Your task to perform on an android device: toggle priority inbox in the gmail app Image 0: 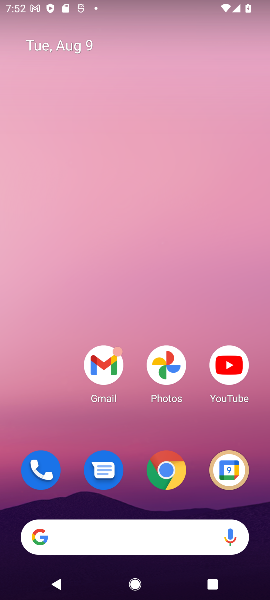
Step 0: click (179, 479)
Your task to perform on an android device: toggle priority inbox in the gmail app Image 1: 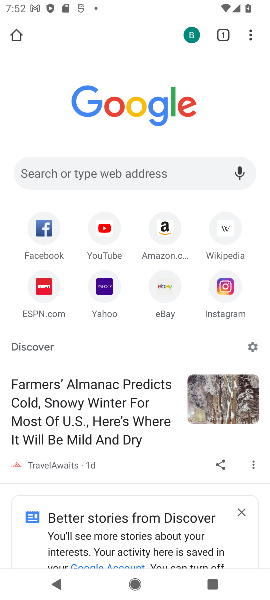
Step 1: click (252, 32)
Your task to perform on an android device: toggle priority inbox in the gmail app Image 2: 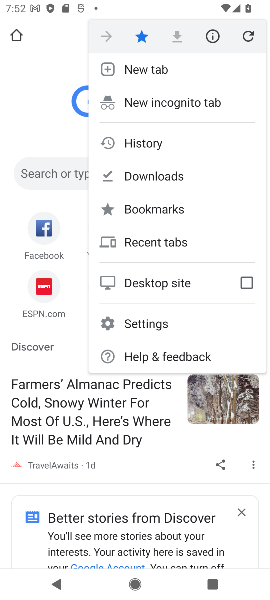
Step 2: click (251, 32)
Your task to perform on an android device: toggle priority inbox in the gmail app Image 3: 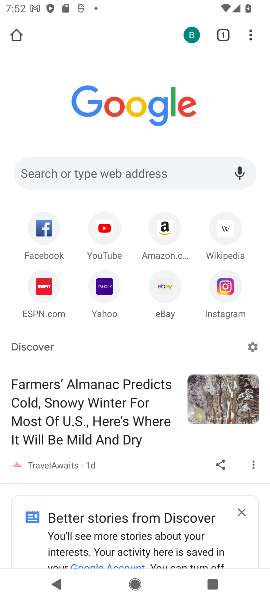
Step 3: click (244, 34)
Your task to perform on an android device: toggle priority inbox in the gmail app Image 4: 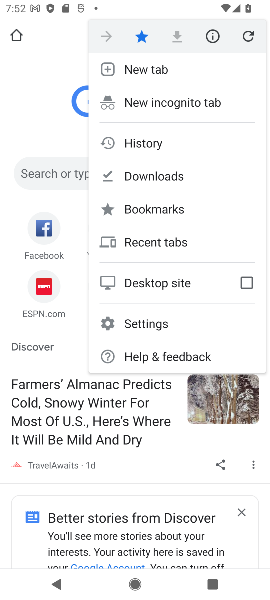
Step 4: click (142, 325)
Your task to perform on an android device: toggle priority inbox in the gmail app Image 5: 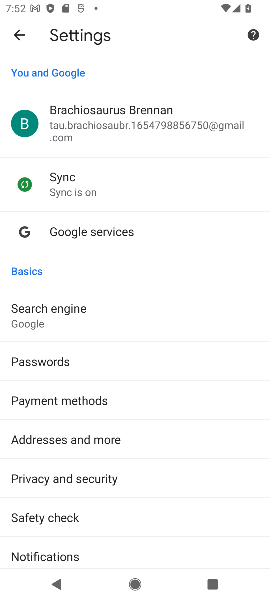
Step 5: drag from (111, 484) to (133, 224)
Your task to perform on an android device: toggle priority inbox in the gmail app Image 6: 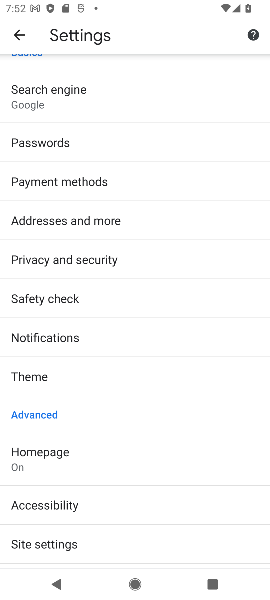
Step 6: drag from (75, 444) to (99, 284)
Your task to perform on an android device: toggle priority inbox in the gmail app Image 7: 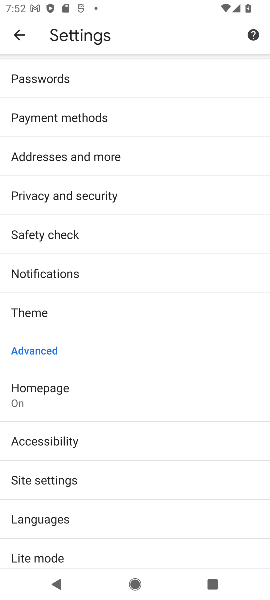
Step 7: click (44, 544)
Your task to perform on an android device: toggle priority inbox in the gmail app Image 8: 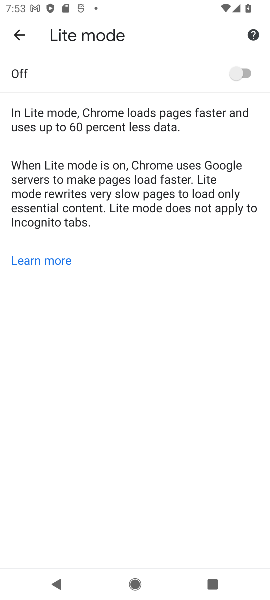
Step 8: press home button
Your task to perform on an android device: toggle priority inbox in the gmail app Image 9: 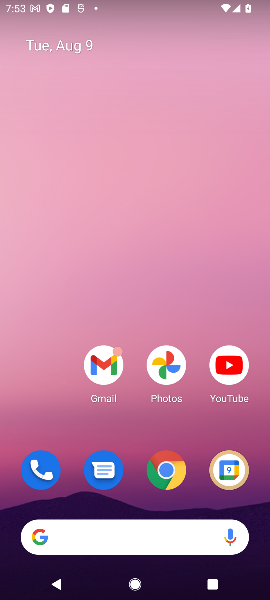
Step 9: drag from (140, 490) to (187, 7)
Your task to perform on an android device: toggle priority inbox in the gmail app Image 10: 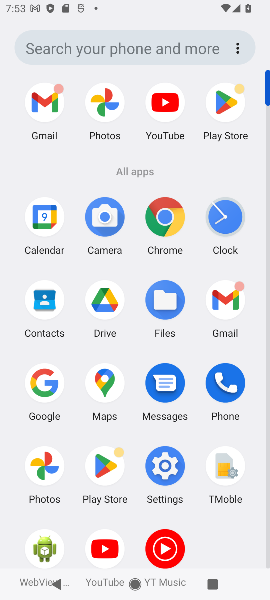
Step 10: click (229, 307)
Your task to perform on an android device: toggle priority inbox in the gmail app Image 11: 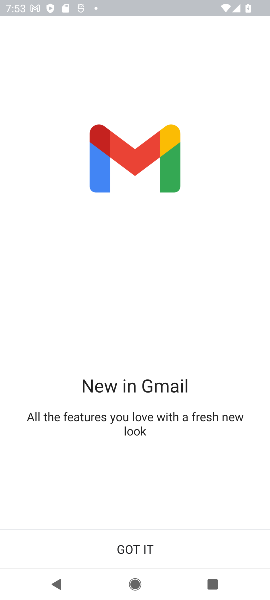
Step 11: click (152, 550)
Your task to perform on an android device: toggle priority inbox in the gmail app Image 12: 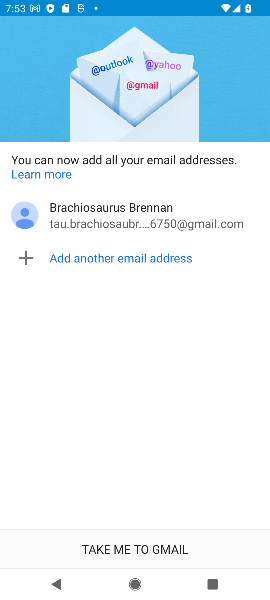
Step 12: click (157, 548)
Your task to perform on an android device: toggle priority inbox in the gmail app Image 13: 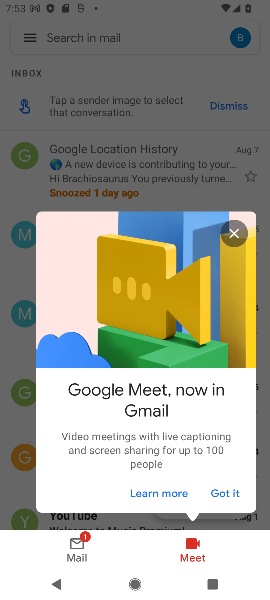
Step 13: click (234, 235)
Your task to perform on an android device: toggle priority inbox in the gmail app Image 14: 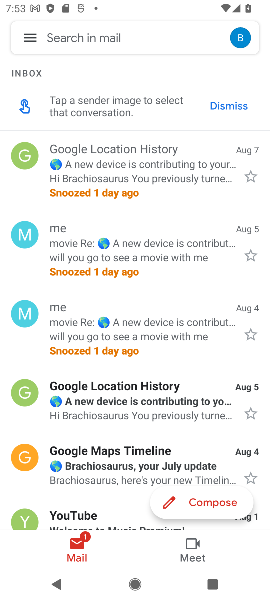
Step 14: click (30, 39)
Your task to perform on an android device: toggle priority inbox in the gmail app Image 15: 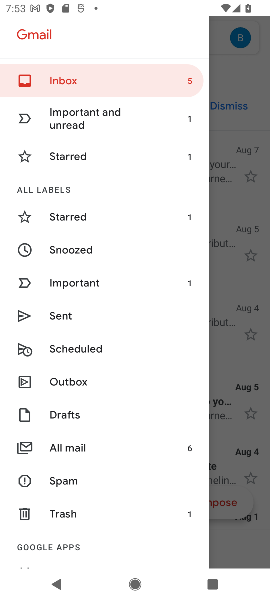
Step 15: drag from (88, 533) to (122, 240)
Your task to perform on an android device: toggle priority inbox in the gmail app Image 16: 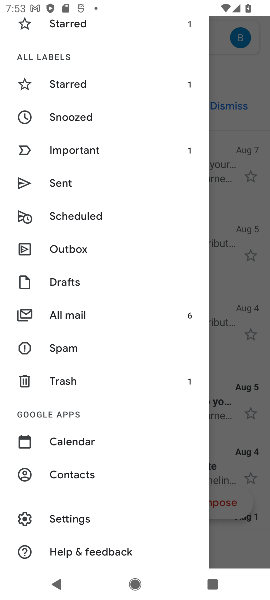
Step 16: click (81, 520)
Your task to perform on an android device: toggle priority inbox in the gmail app Image 17: 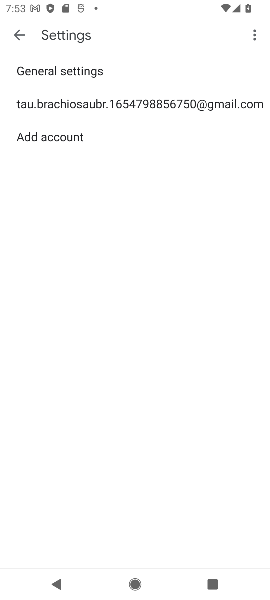
Step 17: click (141, 101)
Your task to perform on an android device: toggle priority inbox in the gmail app Image 18: 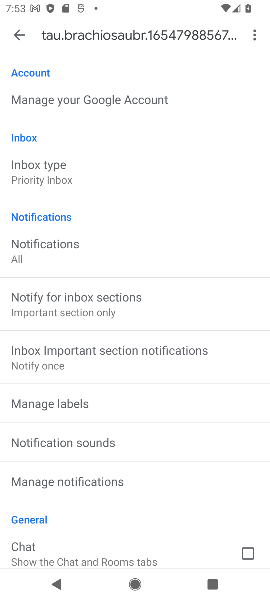
Step 18: click (42, 182)
Your task to perform on an android device: toggle priority inbox in the gmail app Image 19: 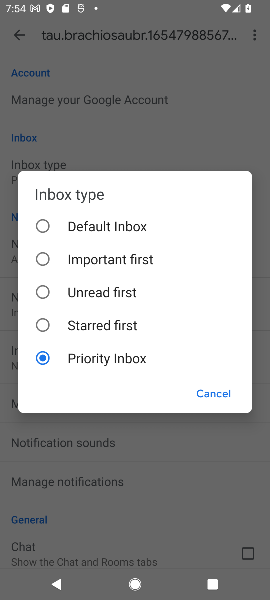
Step 19: click (88, 220)
Your task to perform on an android device: toggle priority inbox in the gmail app Image 20: 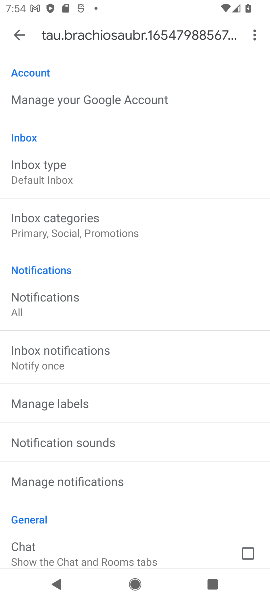
Step 20: task complete